Your task to perform on an android device: toggle location history Image 0: 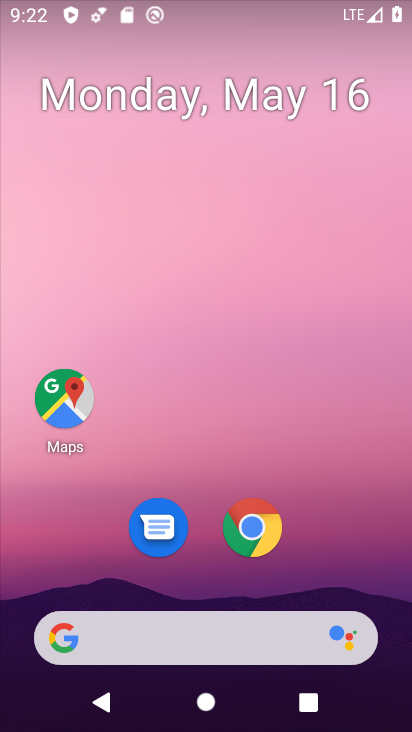
Step 0: click (56, 401)
Your task to perform on an android device: toggle location history Image 1: 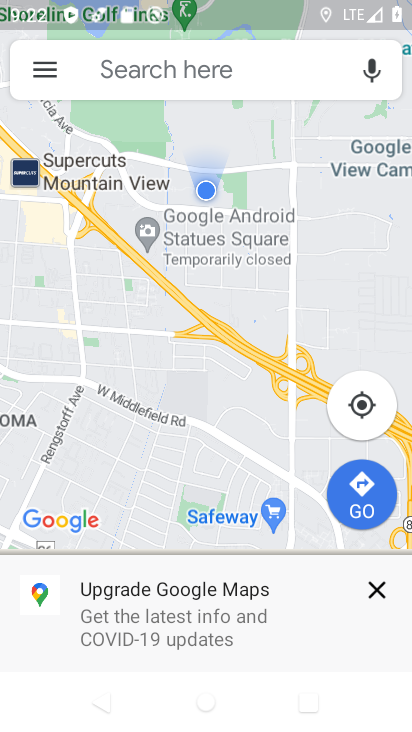
Step 1: click (53, 70)
Your task to perform on an android device: toggle location history Image 2: 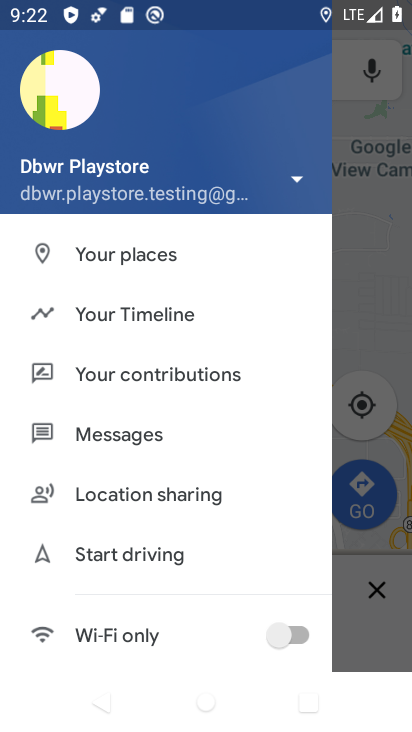
Step 2: click (118, 316)
Your task to perform on an android device: toggle location history Image 3: 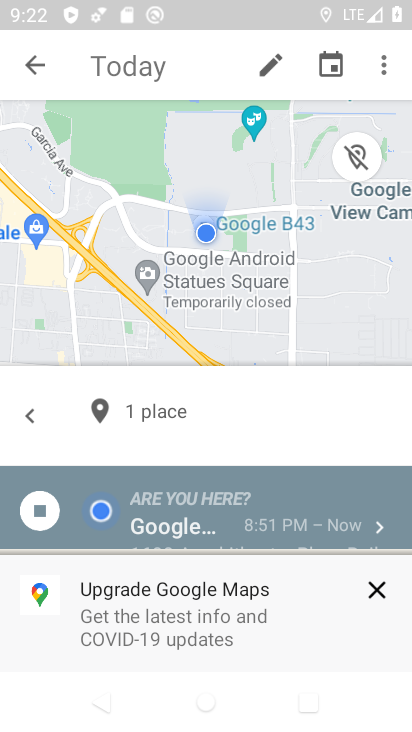
Step 3: click (383, 69)
Your task to perform on an android device: toggle location history Image 4: 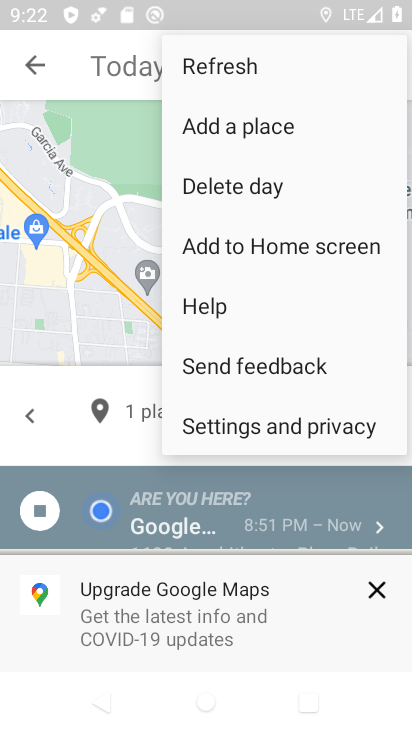
Step 4: click (222, 432)
Your task to perform on an android device: toggle location history Image 5: 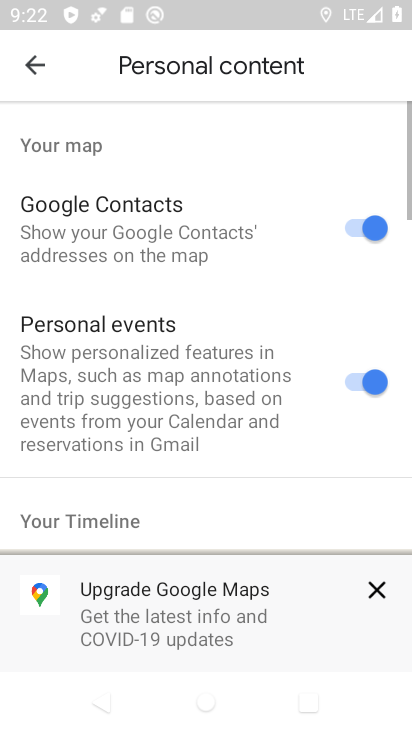
Step 5: drag from (178, 485) to (162, 150)
Your task to perform on an android device: toggle location history Image 6: 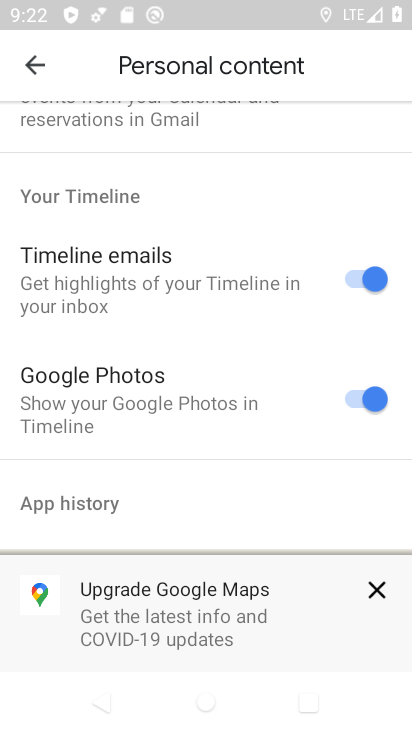
Step 6: drag from (139, 485) to (151, 145)
Your task to perform on an android device: toggle location history Image 7: 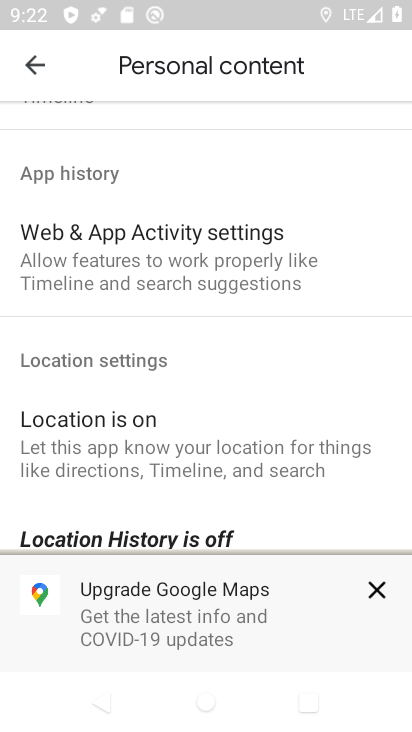
Step 7: drag from (167, 375) to (170, 152)
Your task to perform on an android device: toggle location history Image 8: 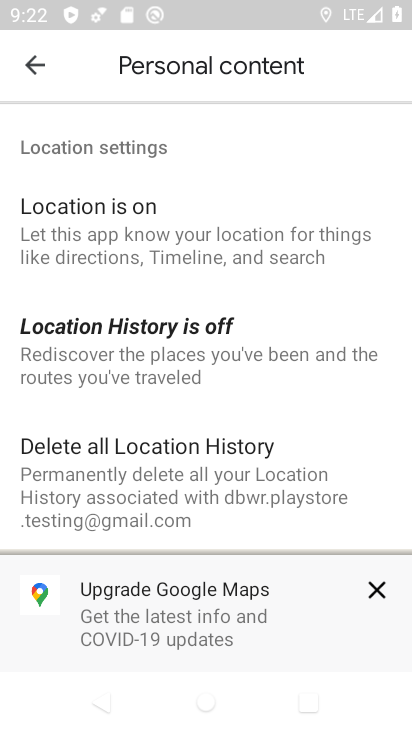
Step 8: click (133, 333)
Your task to perform on an android device: toggle location history Image 9: 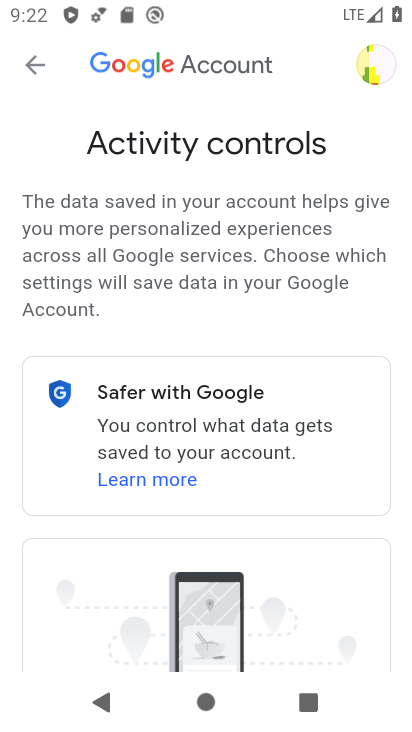
Step 9: drag from (161, 594) to (173, 57)
Your task to perform on an android device: toggle location history Image 10: 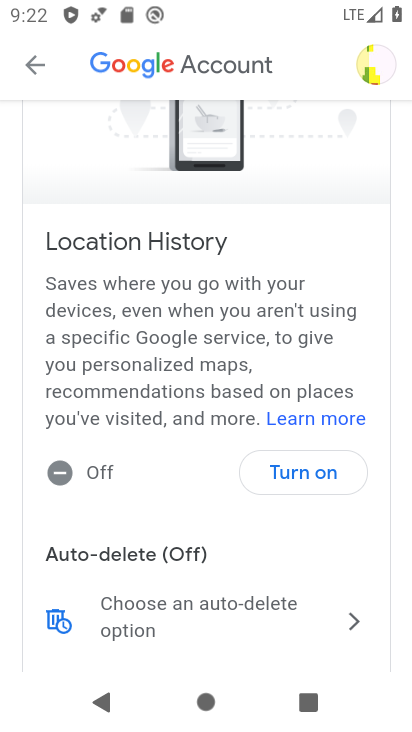
Step 10: click (304, 474)
Your task to perform on an android device: toggle location history Image 11: 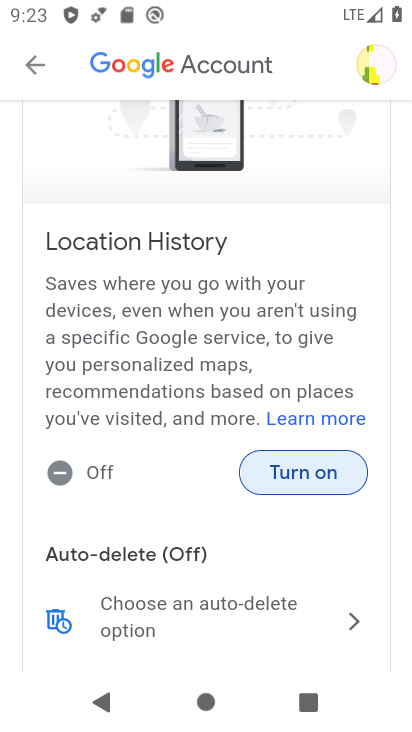
Step 11: click (282, 481)
Your task to perform on an android device: toggle location history Image 12: 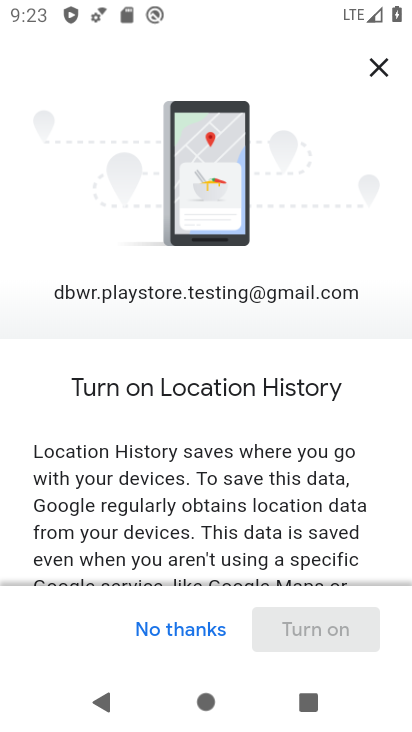
Step 12: drag from (182, 564) to (181, 1)
Your task to perform on an android device: toggle location history Image 13: 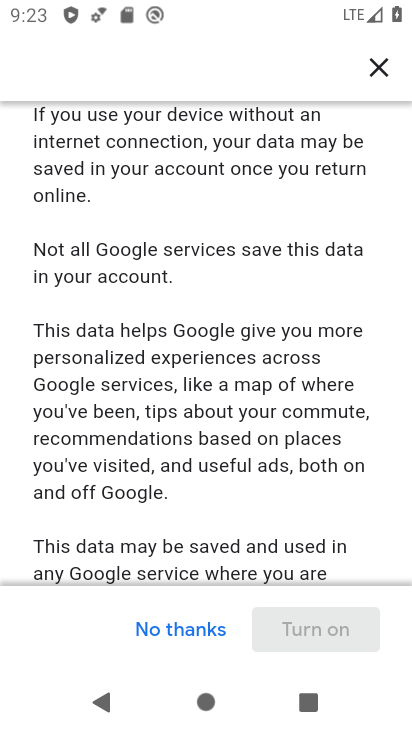
Step 13: drag from (167, 503) to (173, 1)
Your task to perform on an android device: toggle location history Image 14: 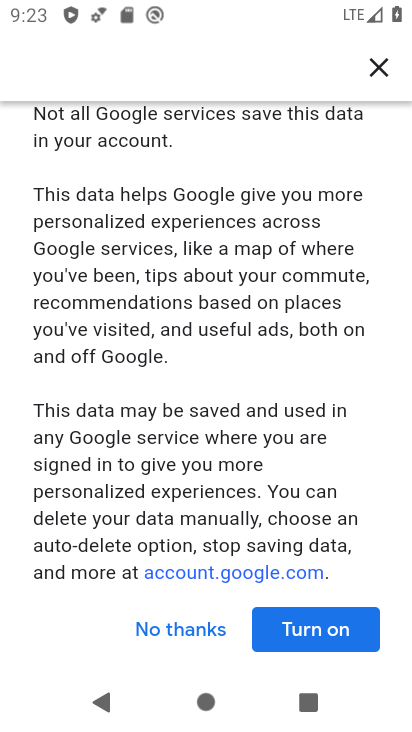
Step 14: click (313, 633)
Your task to perform on an android device: toggle location history Image 15: 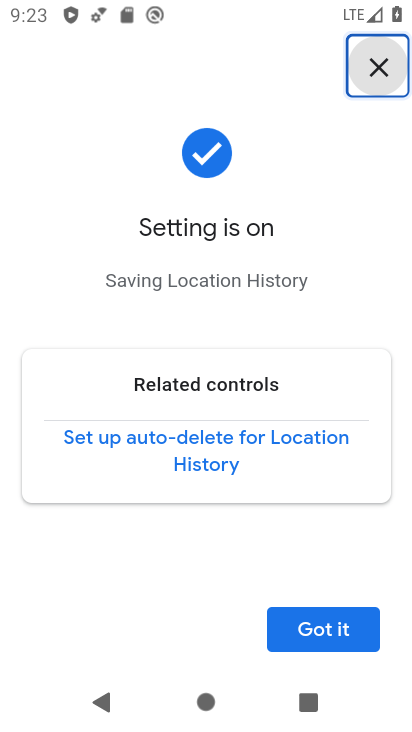
Step 15: click (317, 632)
Your task to perform on an android device: toggle location history Image 16: 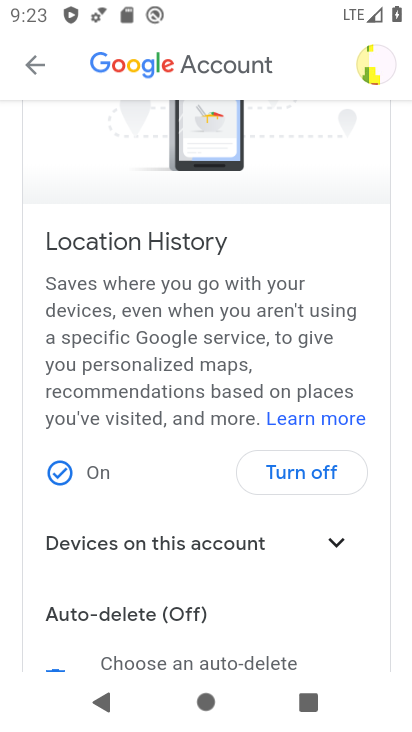
Step 16: task complete